Your task to perform on an android device: Check the news Image 0: 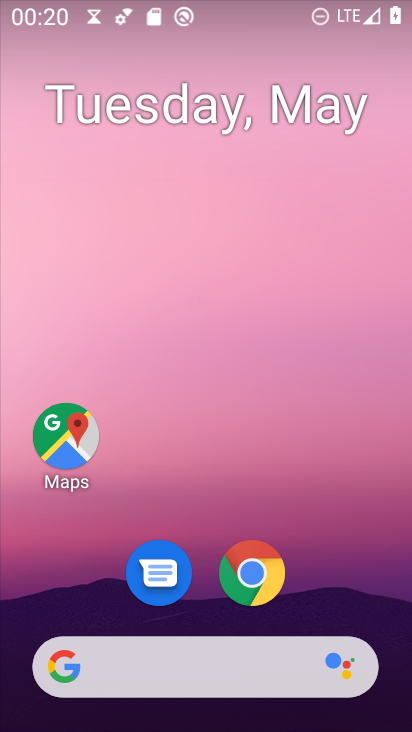
Step 0: drag from (325, 487) to (233, 34)
Your task to perform on an android device: Check the news Image 1: 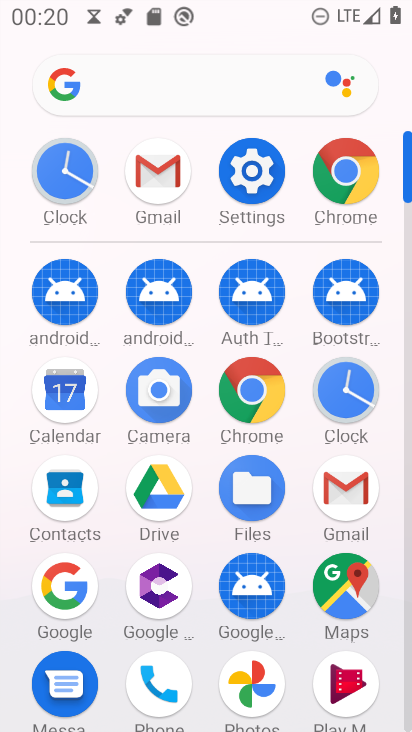
Step 1: click (79, 584)
Your task to perform on an android device: Check the news Image 2: 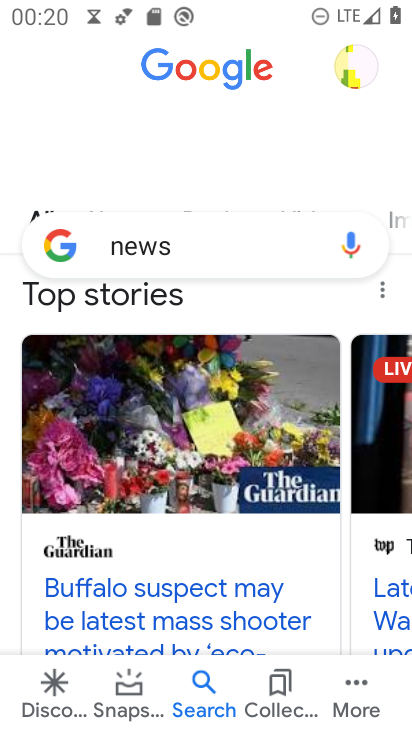
Step 2: task complete